Your task to perform on an android device: Go to Yahoo.com Image 0: 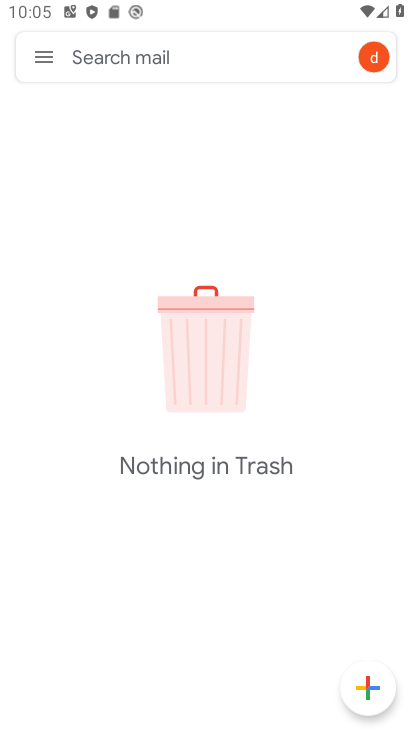
Step 0: press home button
Your task to perform on an android device: Go to Yahoo.com Image 1: 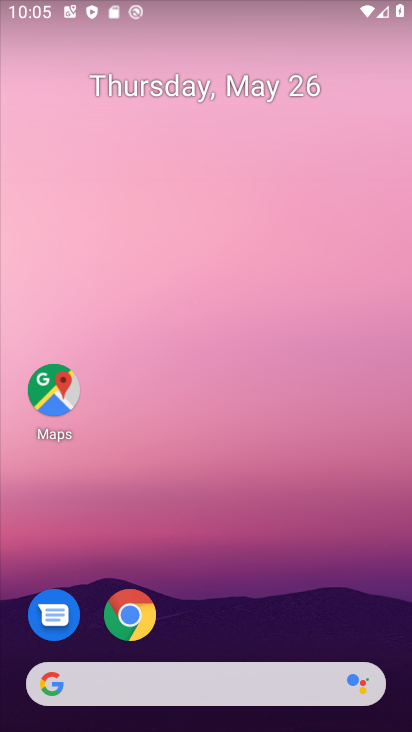
Step 1: drag from (251, 681) to (285, 195)
Your task to perform on an android device: Go to Yahoo.com Image 2: 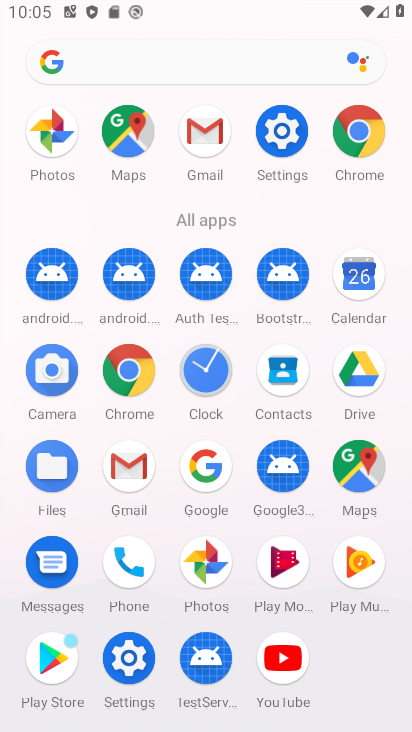
Step 2: click (141, 374)
Your task to perform on an android device: Go to Yahoo.com Image 3: 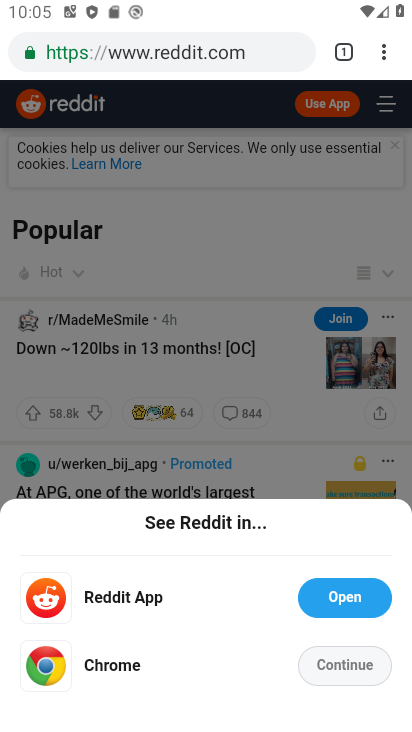
Step 3: click (210, 57)
Your task to perform on an android device: Go to Yahoo.com Image 4: 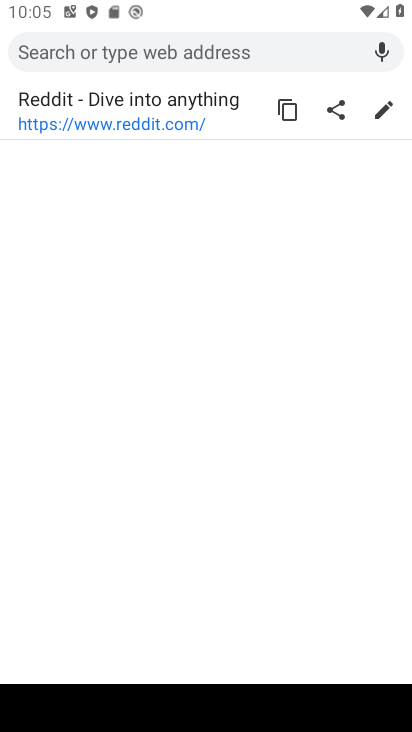
Step 4: type "yahoo.com"
Your task to perform on an android device: Go to Yahoo.com Image 5: 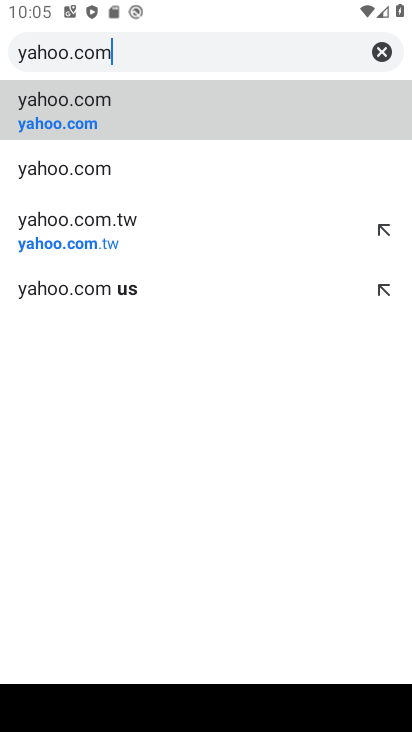
Step 5: click (91, 106)
Your task to perform on an android device: Go to Yahoo.com Image 6: 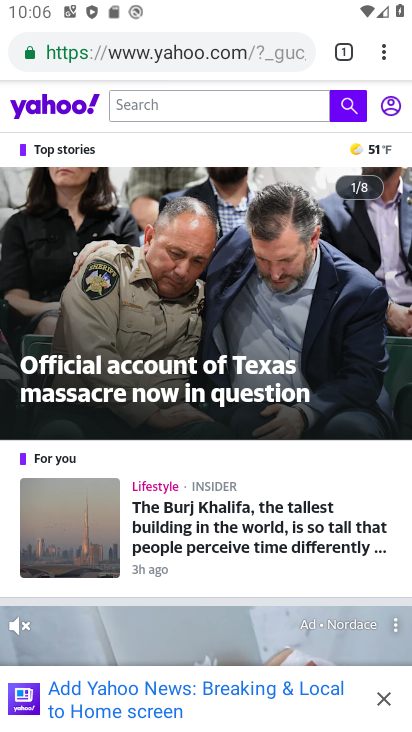
Step 6: task complete